Your task to perform on an android device: all mails in gmail Image 0: 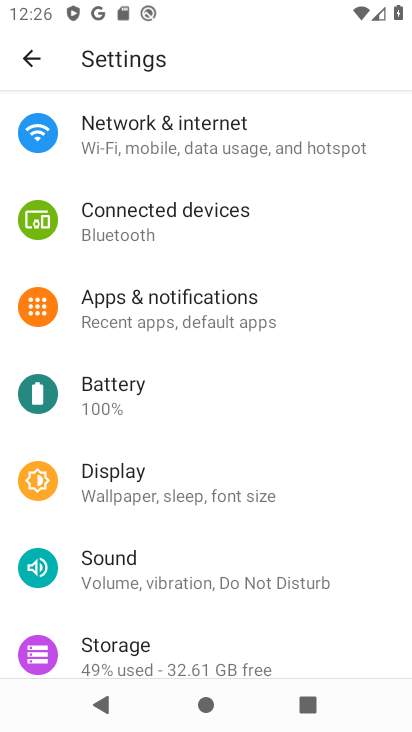
Step 0: press home button
Your task to perform on an android device: all mails in gmail Image 1: 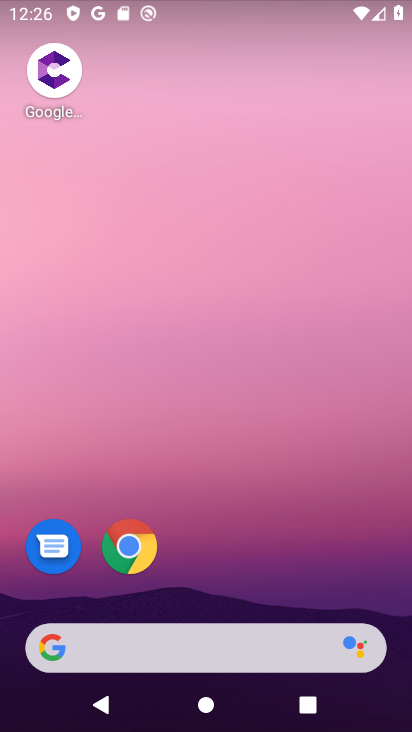
Step 1: drag from (263, 573) to (248, 50)
Your task to perform on an android device: all mails in gmail Image 2: 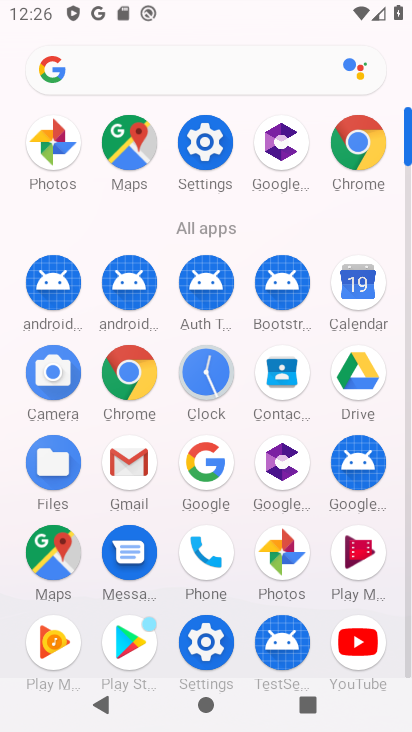
Step 2: click (132, 460)
Your task to perform on an android device: all mails in gmail Image 3: 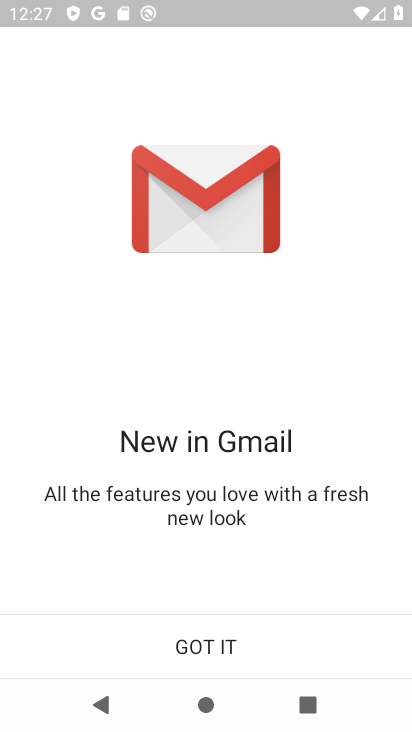
Step 3: click (247, 654)
Your task to perform on an android device: all mails in gmail Image 4: 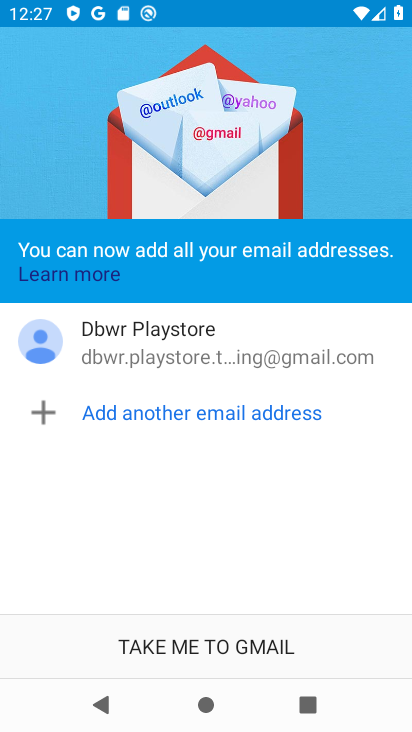
Step 4: click (216, 650)
Your task to perform on an android device: all mails in gmail Image 5: 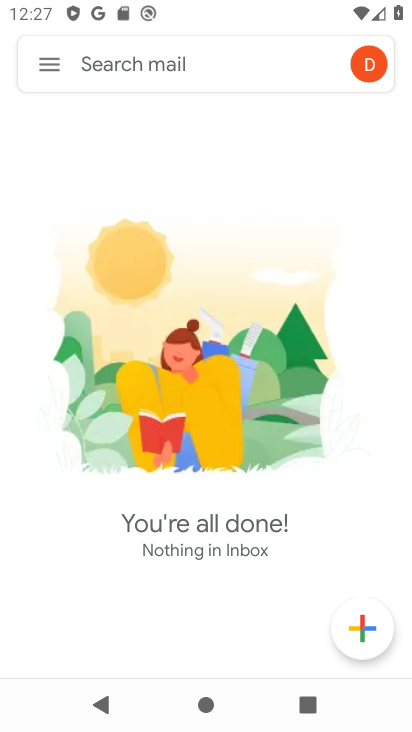
Step 5: click (37, 63)
Your task to perform on an android device: all mails in gmail Image 6: 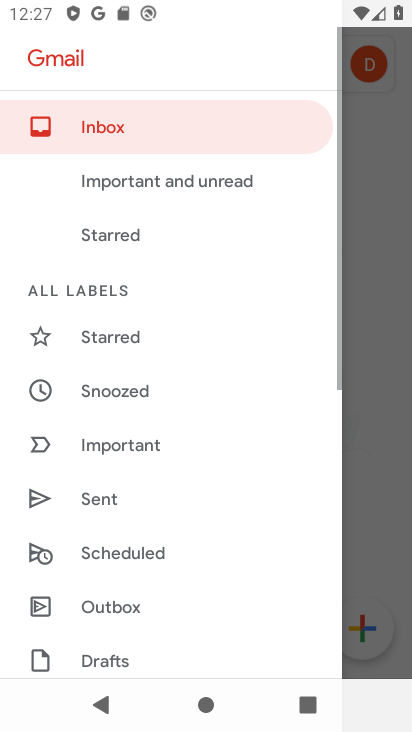
Step 6: drag from (180, 592) to (190, 164)
Your task to perform on an android device: all mails in gmail Image 7: 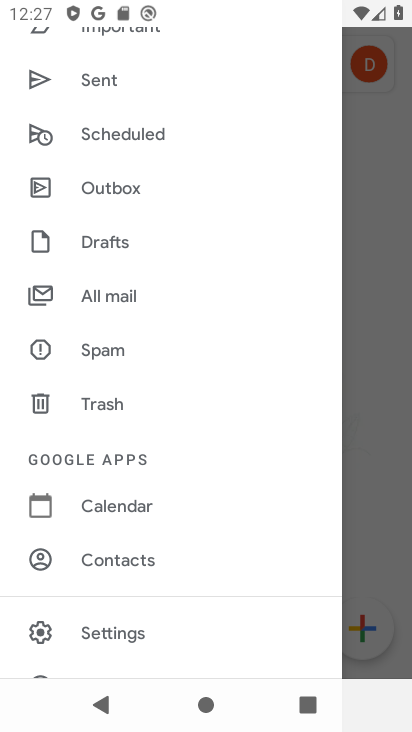
Step 7: click (81, 297)
Your task to perform on an android device: all mails in gmail Image 8: 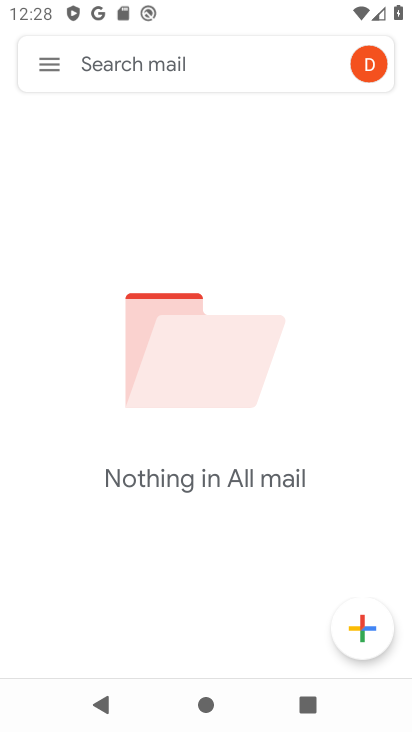
Step 8: task complete